Your task to perform on an android device: find which apps use the phone's location Image 0: 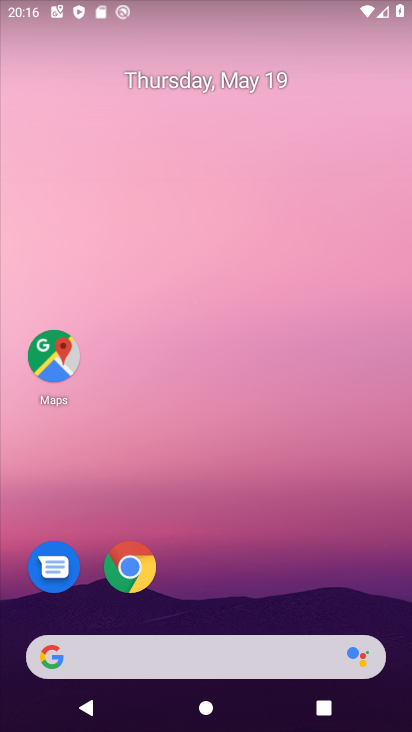
Step 0: drag from (251, 558) to (319, 191)
Your task to perform on an android device: find which apps use the phone's location Image 1: 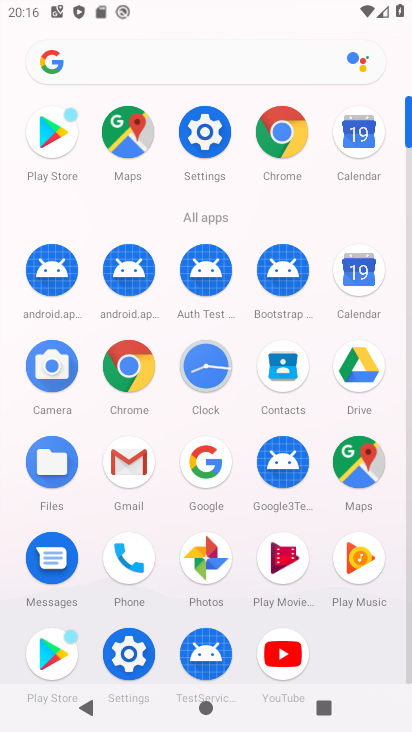
Step 1: click (126, 652)
Your task to perform on an android device: find which apps use the phone's location Image 2: 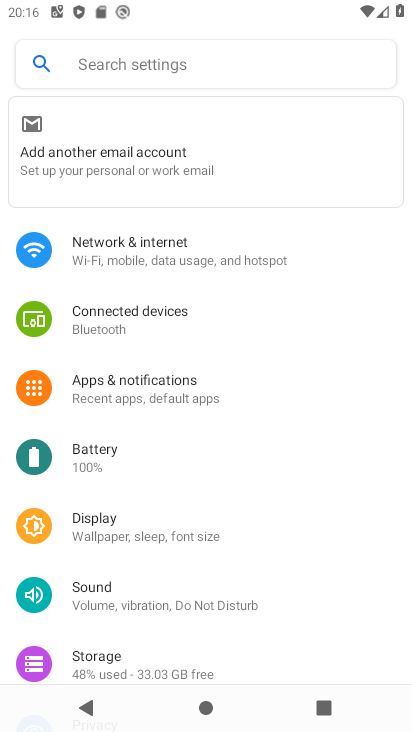
Step 2: click (139, 402)
Your task to perform on an android device: find which apps use the phone's location Image 3: 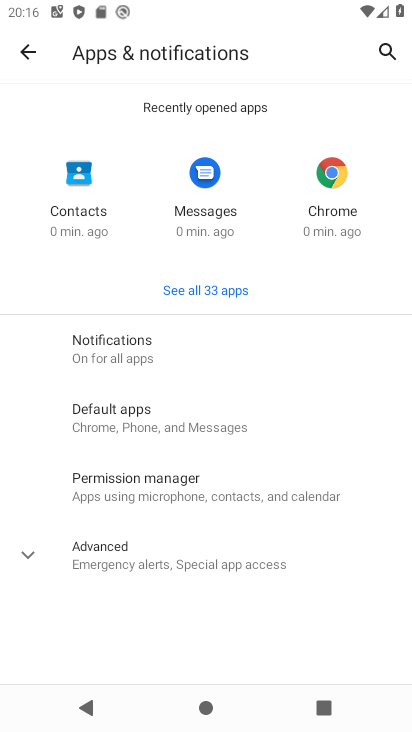
Step 3: click (27, 47)
Your task to perform on an android device: find which apps use the phone's location Image 4: 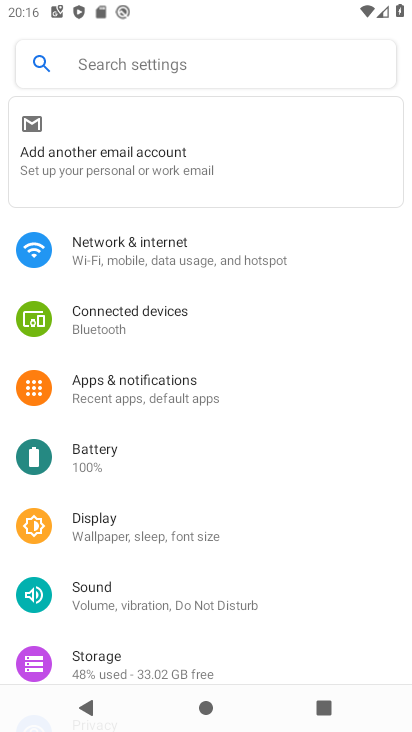
Step 4: drag from (237, 582) to (266, 353)
Your task to perform on an android device: find which apps use the phone's location Image 5: 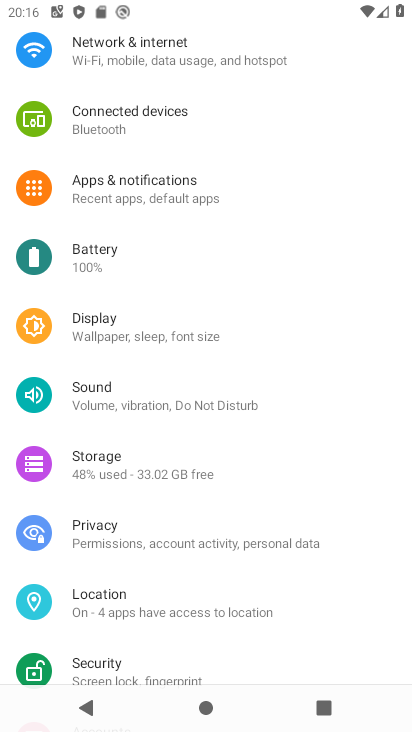
Step 5: click (137, 602)
Your task to perform on an android device: find which apps use the phone's location Image 6: 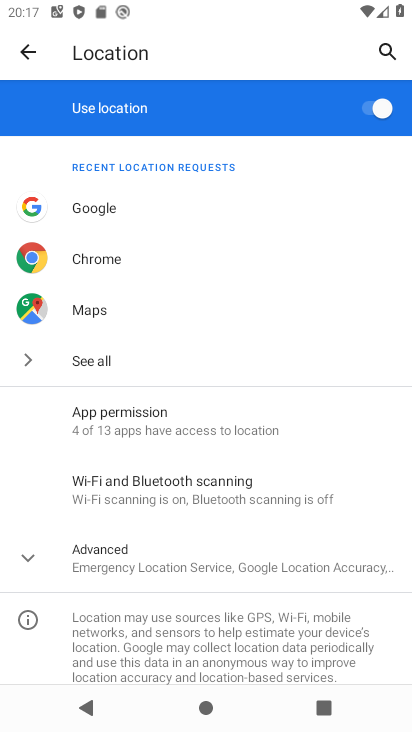
Step 6: click (160, 427)
Your task to perform on an android device: find which apps use the phone's location Image 7: 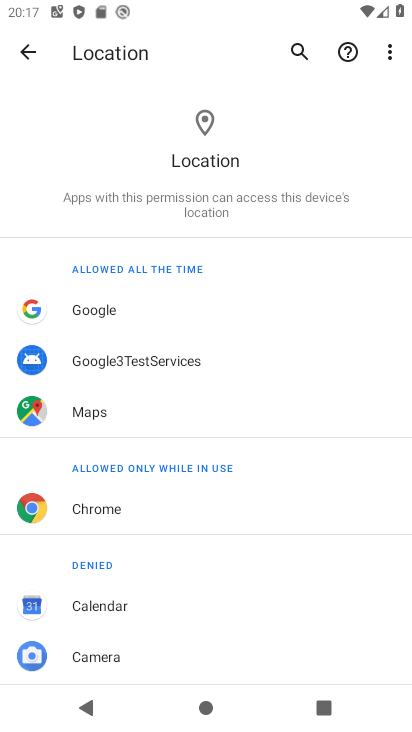
Step 7: task complete